Your task to perform on an android device: turn on airplane mode Image 0: 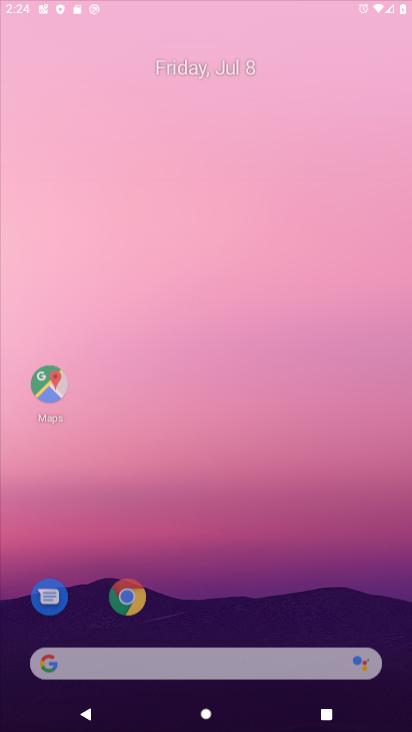
Step 0: press home button
Your task to perform on an android device: turn on airplane mode Image 1: 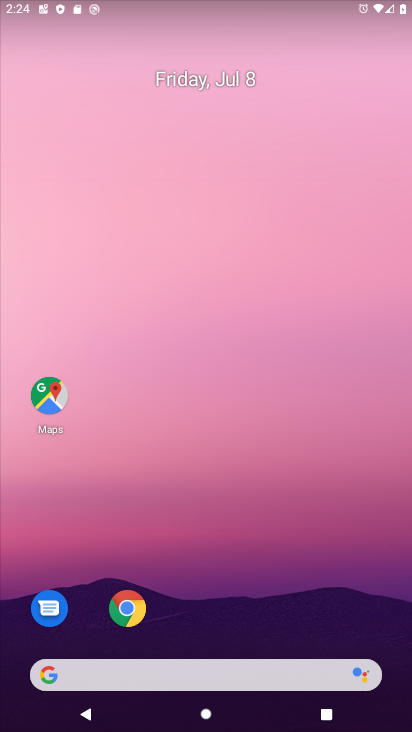
Step 1: drag from (235, 10) to (244, 533)
Your task to perform on an android device: turn on airplane mode Image 2: 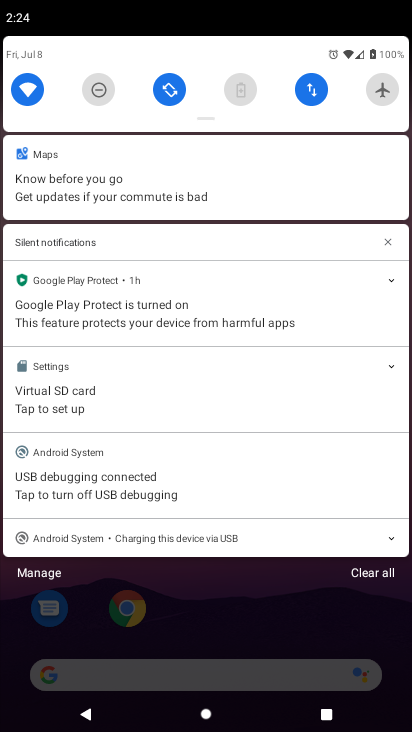
Step 2: click (378, 77)
Your task to perform on an android device: turn on airplane mode Image 3: 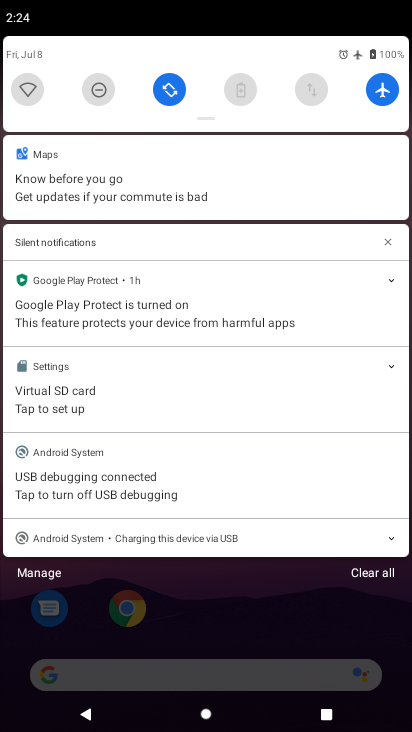
Step 3: task complete